Your task to perform on an android device: What's the price of the Galaxy phone on eBay? Image 0: 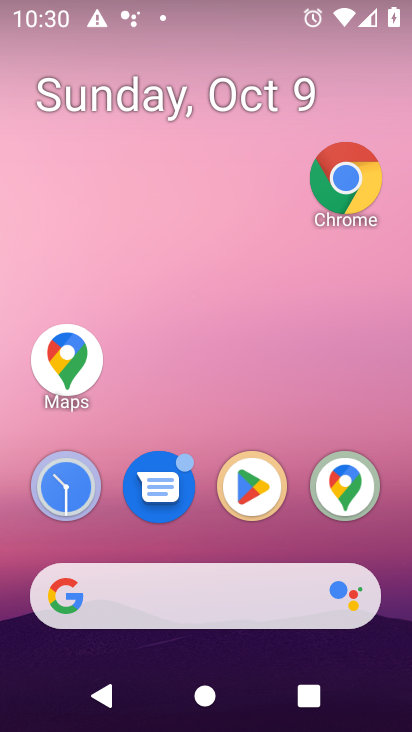
Step 0: click (262, 557)
Your task to perform on an android device: What's the price of the Galaxy phone on eBay? Image 1: 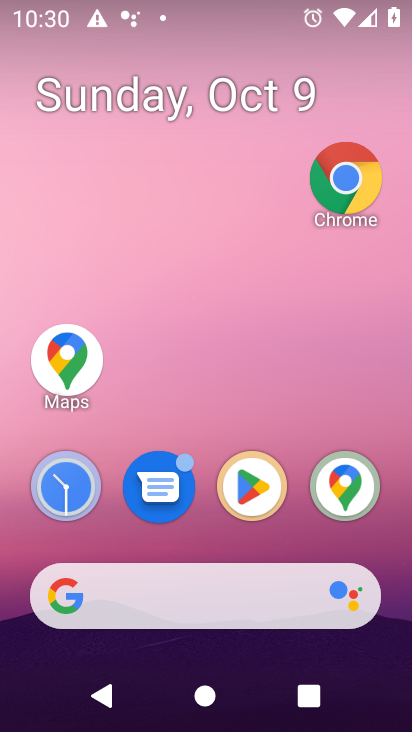
Step 1: drag from (280, 607) to (313, 250)
Your task to perform on an android device: What's the price of the Galaxy phone on eBay? Image 2: 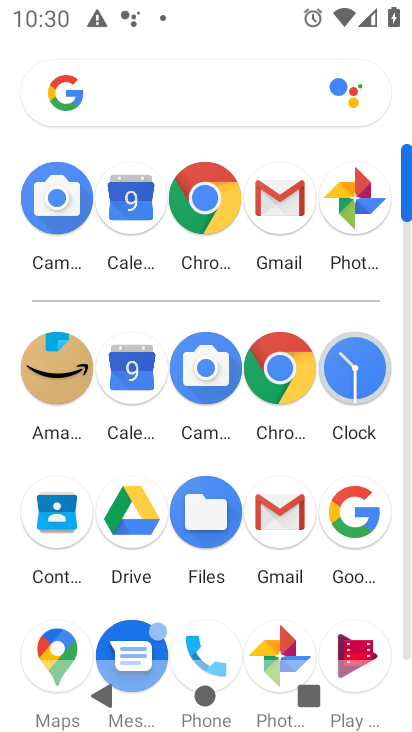
Step 2: click (352, 546)
Your task to perform on an android device: What's the price of the Galaxy phone on eBay? Image 3: 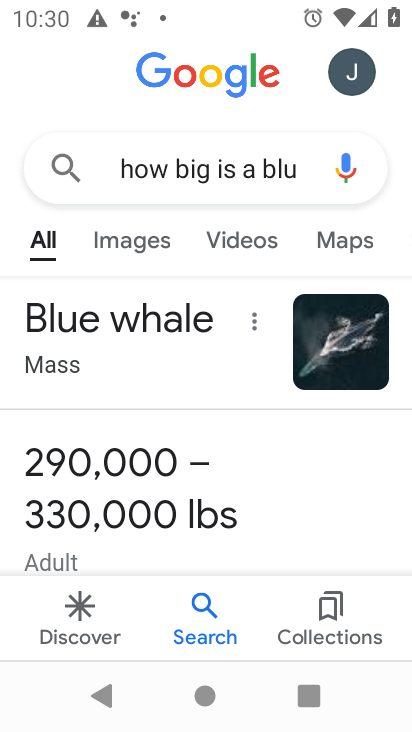
Step 3: click (300, 181)
Your task to perform on an android device: What's the price of the Galaxy phone on eBay? Image 4: 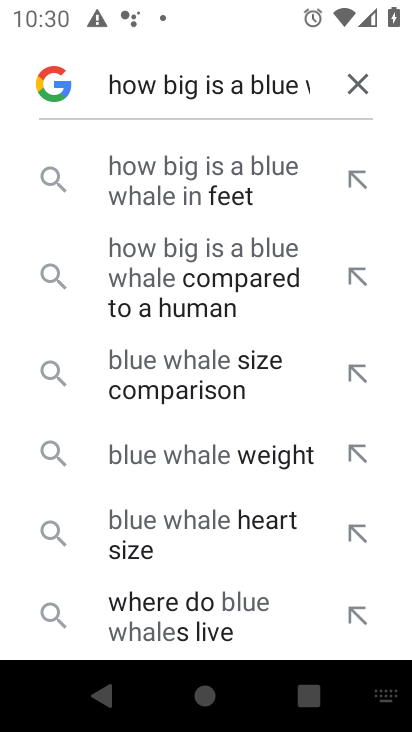
Step 4: click (363, 79)
Your task to perform on an android device: What's the price of the Galaxy phone on eBay? Image 5: 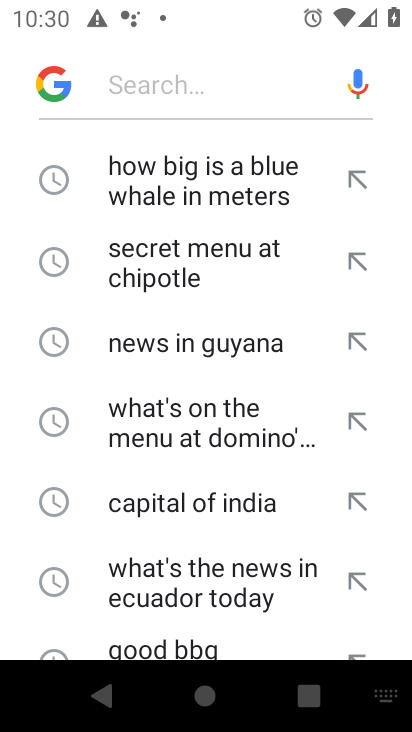
Step 5: type "eBay"
Your task to perform on an android device: What's the price of the Galaxy phone on eBay? Image 6: 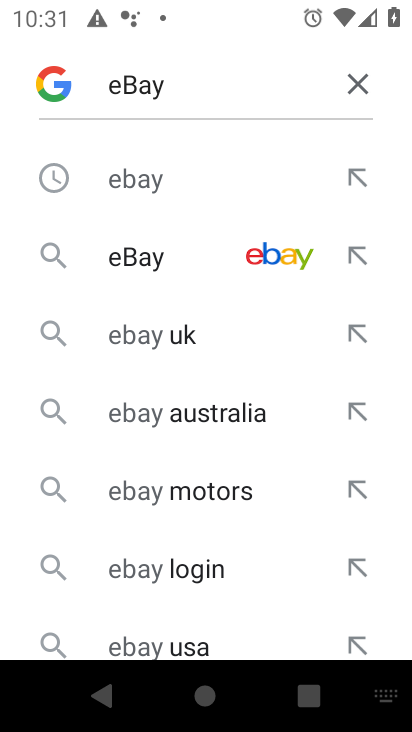
Step 6: click (220, 259)
Your task to perform on an android device: What's the price of the Galaxy phone on eBay? Image 7: 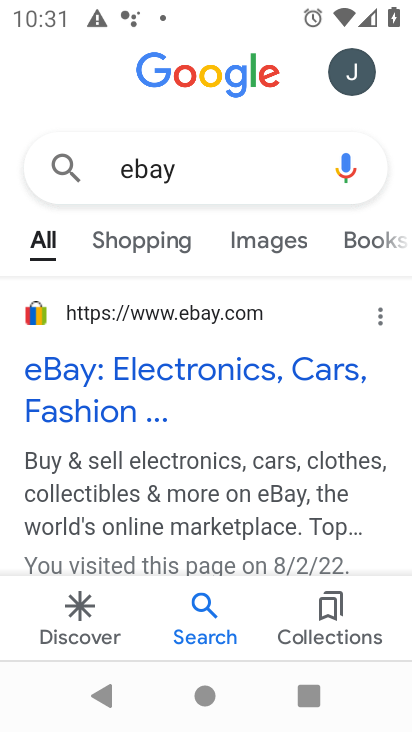
Step 7: click (175, 375)
Your task to perform on an android device: What's the price of the Galaxy phone on eBay? Image 8: 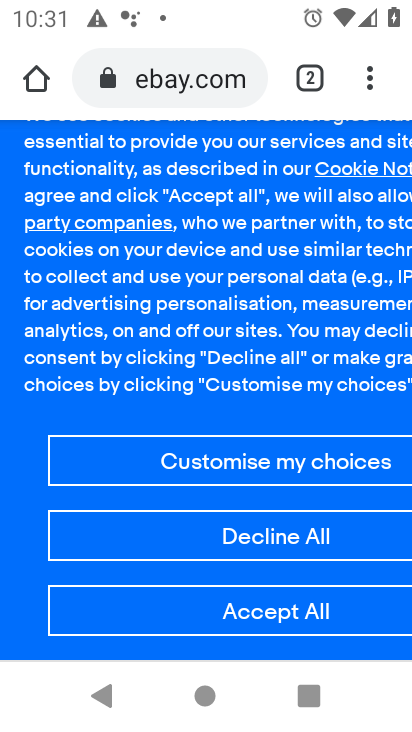
Step 8: click (272, 605)
Your task to perform on an android device: What's the price of the Galaxy phone on eBay? Image 9: 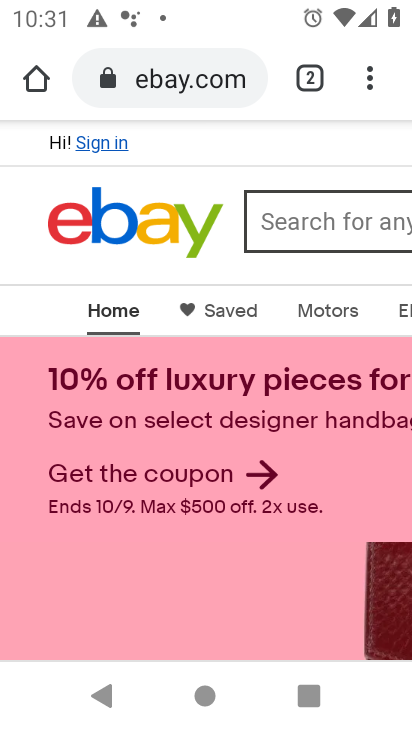
Step 9: click (355, 220)
Your task to perform on an android device: What's the price of the Galaxy phone on eBay? Image 10: 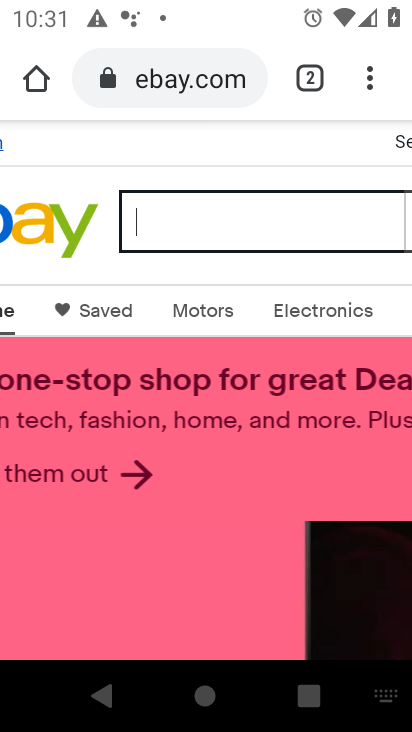
Step 10: type "galaxy phone"
Your task to perform on an android device: What's the price of the Galaxy phone on eBay? Image 11: 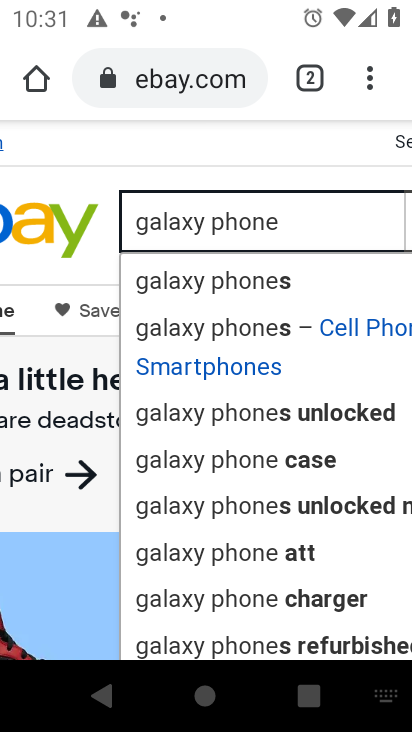
Step 11: click (283, 279)
Your task to perform on an android device: What's the price of the Galaxy phone on eBay? Image 12: 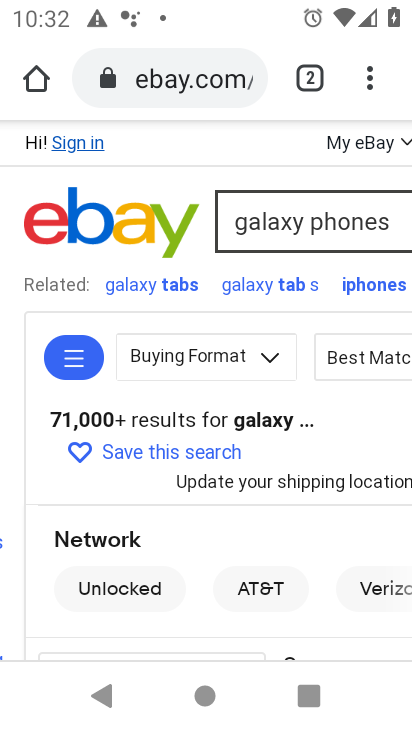
Step 12: task complete